Your task to perform on an android device: toggle improve location accuracy Image 0: 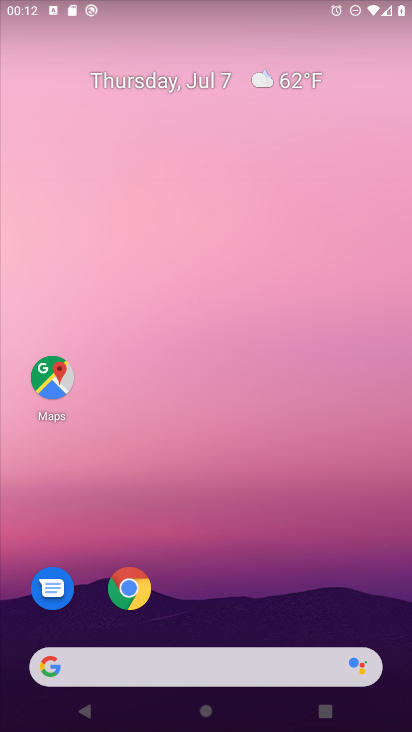
Step 0: drag from (371, 589) to (370, 85)
Your task to perform on an android device: toggle improve location accuracy Image 1: 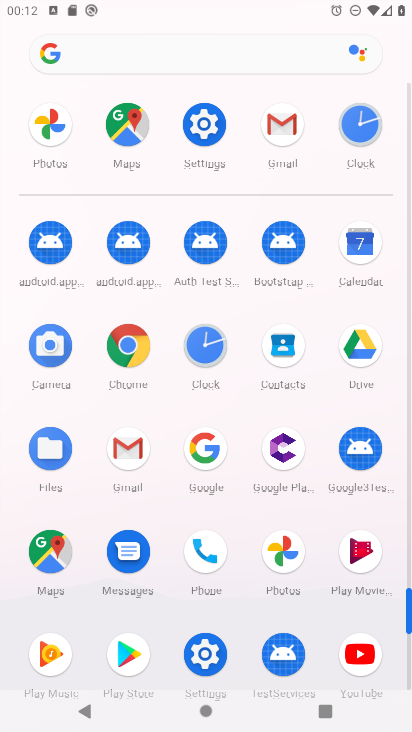
Step 1: click (204, 654)
Your task to perform on an android device: toggle improve location accuracy Image 2: 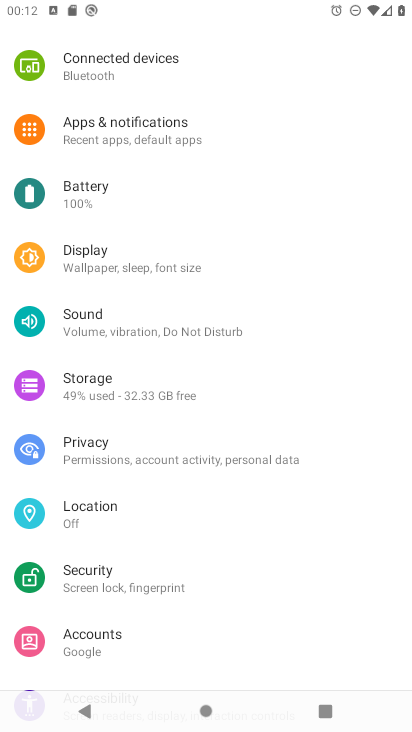
Step 2: drag from (322, 177) to (292, 437)
Your task to perform on an android device: toggle improve location accuracy Image 3: 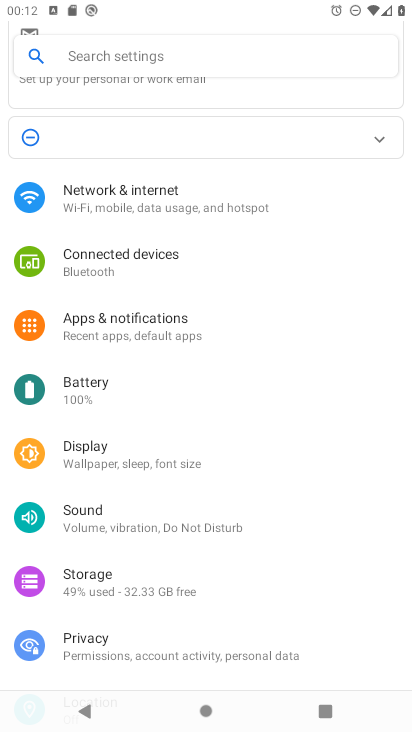
Step 3: drag from (256, 667) to (287, 225)
Your task to perform on an android device: toggle improve location accuracy Image 4: 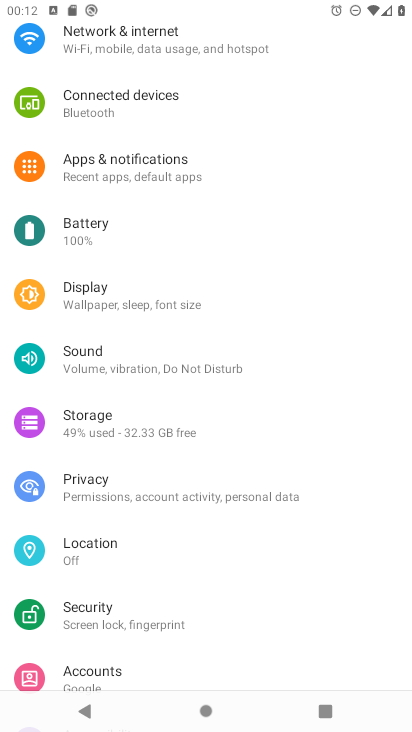
Step 4: click (73, 547)
Your task to perform on an android device: toggle improve location accuracy Image 5: 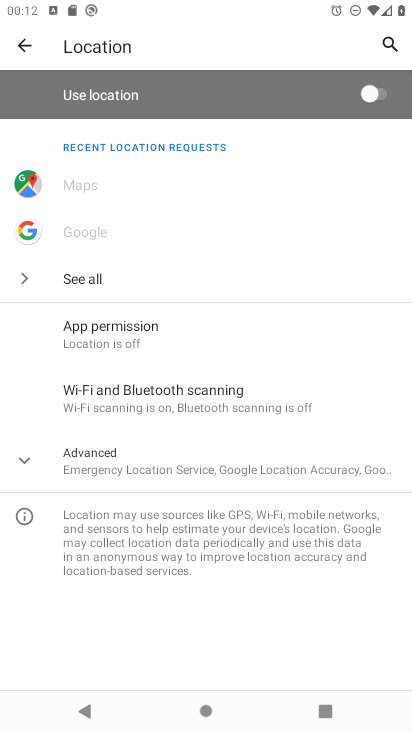
Step 5: click (24, 459)
Your task to perform on an android device: toggle improve location accuracy Image 6: 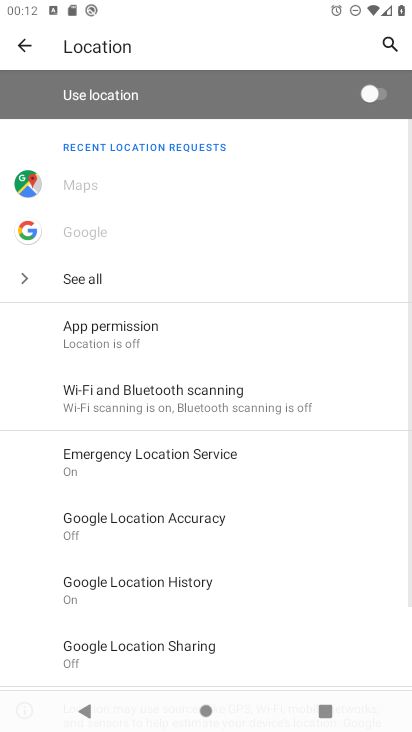
Step 6: drag from (266, 600) to (268, 334)
Your task to perform on an android device: toggle improve location accuracy Image 7: 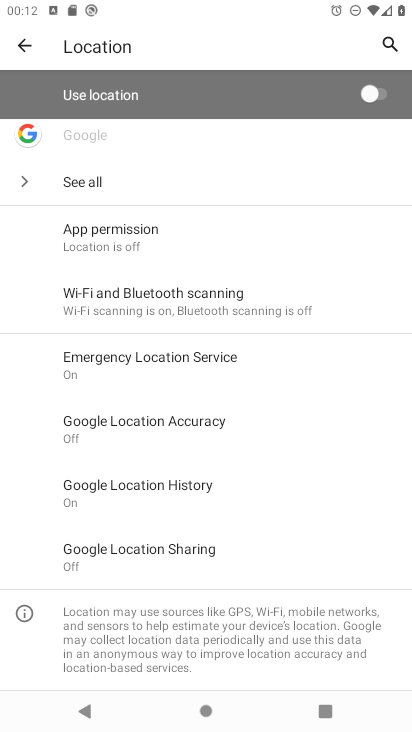
Step 7: click (96, 427)
Your task to perform on an android device: toggle improve location accuracy Image 8: 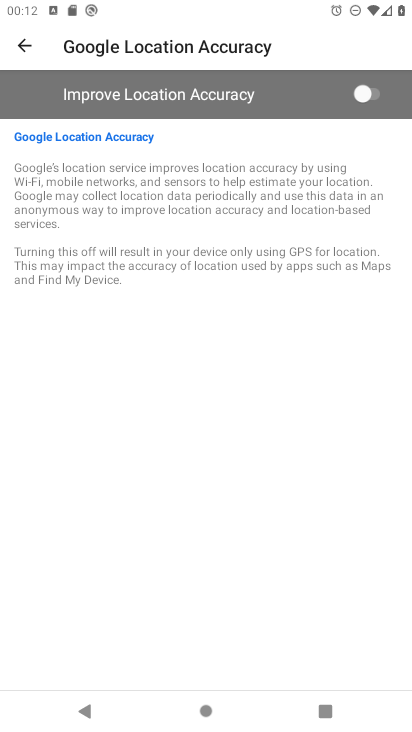
Step 8: click (376, 96)
Your task to perform on an android device: toggle improve location accuracy Image 9: 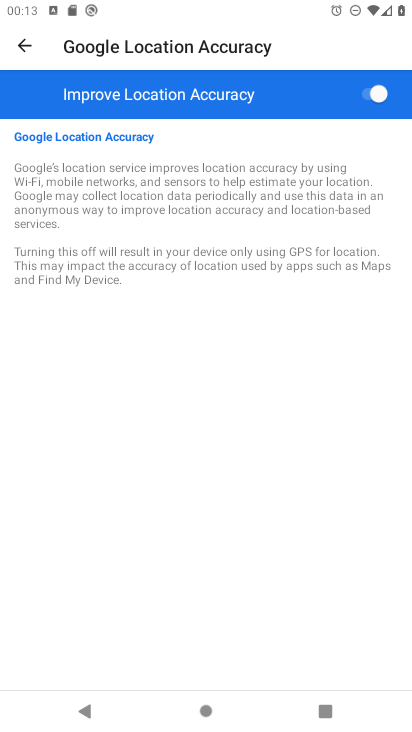
Step 9: task complete